Your task to perform on an android device: see creations saved in the google photos Image 0: 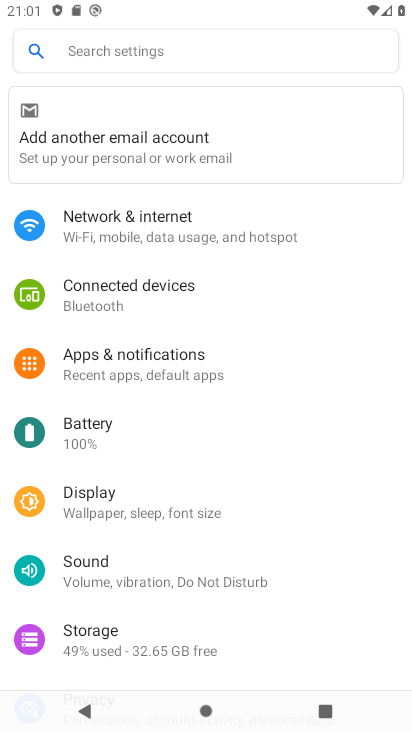
Step 0: press home button
Your task to perform on an android device: see creations saved in the google photos Image 1: 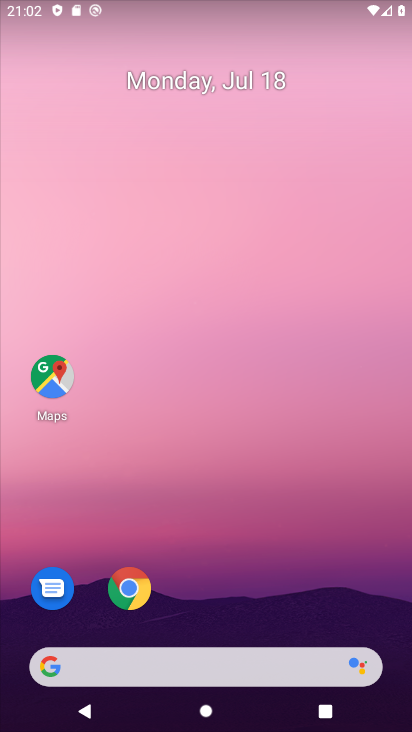
Step 1: drag from (288, 596) to (311, 69)
Your task to perform on an android device: see creations saved in the google photos Image 2: 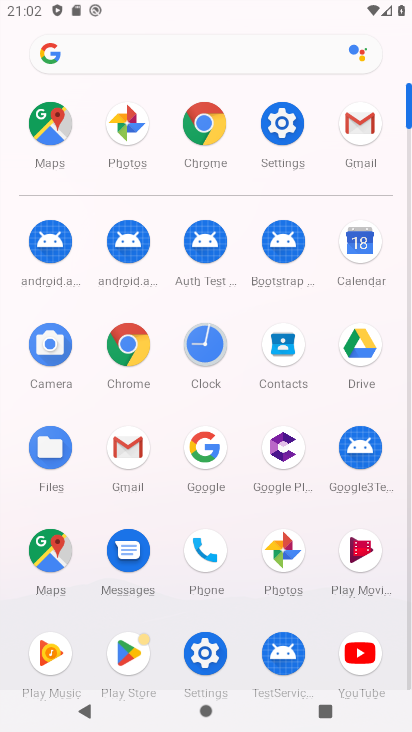
Step 2: click (304, 571)
Your task to perform on an android device: see creations saved in the google photos Image 3: 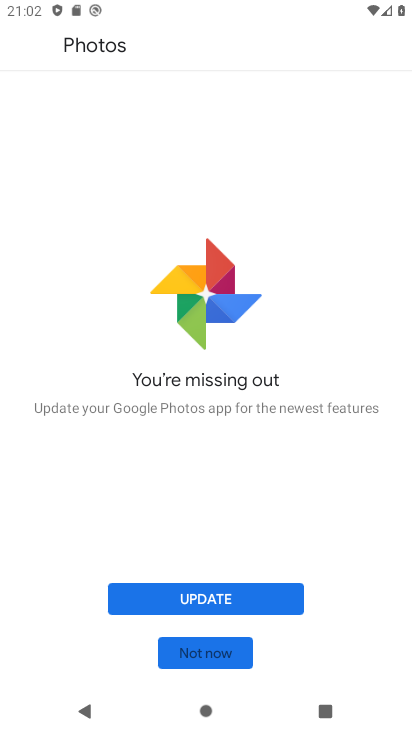
Step 3: click (263, 593)
Your task to perform on an android device: see creations saved in the google photos Image 4: 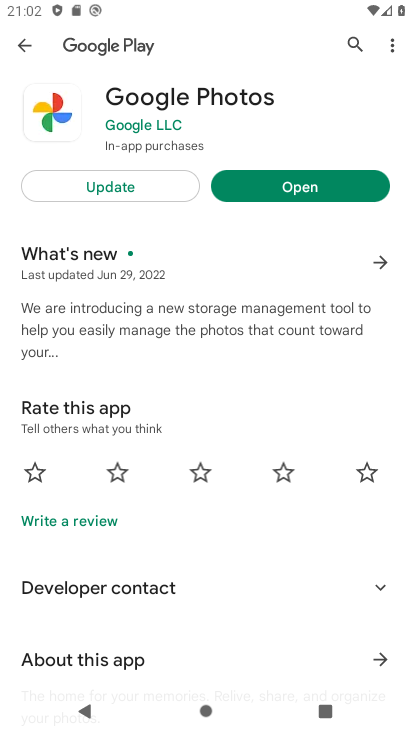
Step 4: click (151, 179)
Your task to perform on an android device: see creations saved in the google photos Image 5: 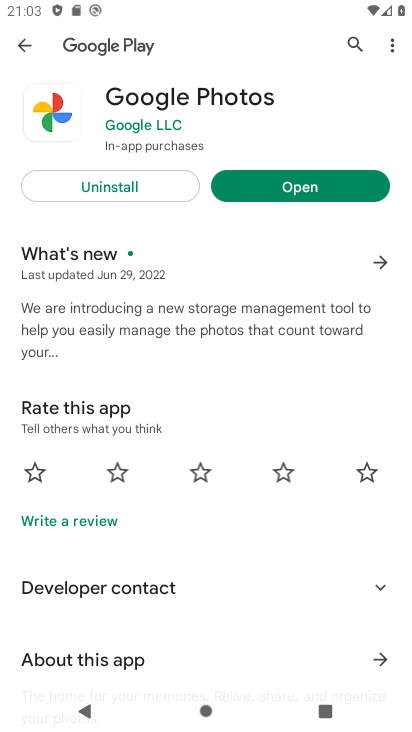
Step 5: click (307, 184)
Your task to perform on an android device: see creations saved in the google photos Image 6: 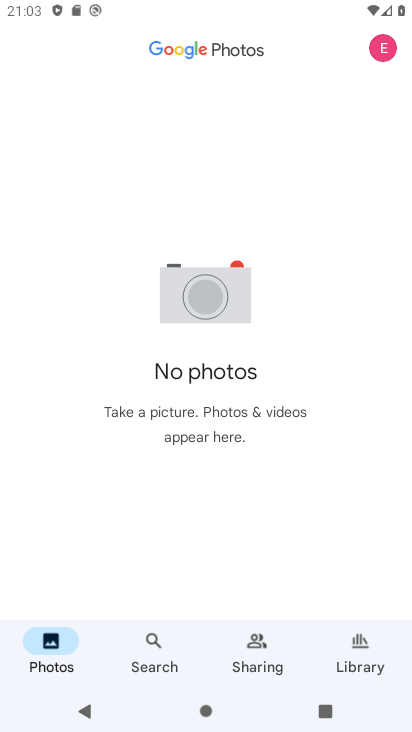
Step 6: click (174, 668)
Your task to perform on an android device: see creations saved in the google photos Image 7: 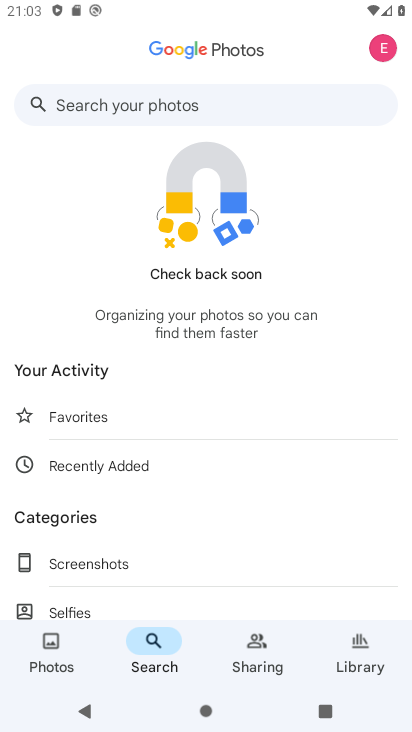
Step 7: click (255, 118)
Your task to perform on an android device: see creations saved in the google photos Image 8: 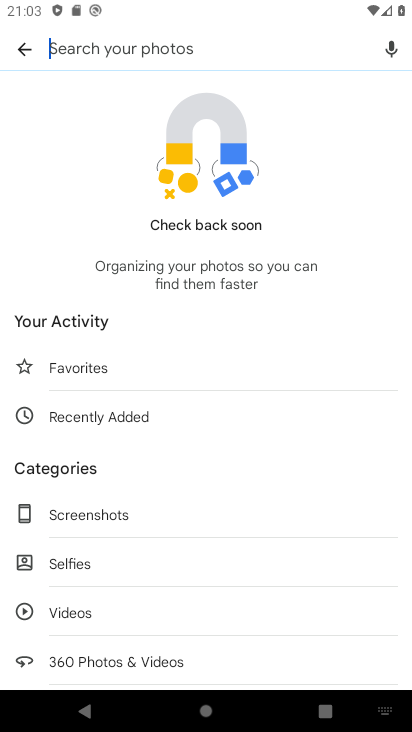
Step 8: drag from (103, 552) to (201, 211)
Your task to perform on an android device: see creations saved in the google photos Image 9: 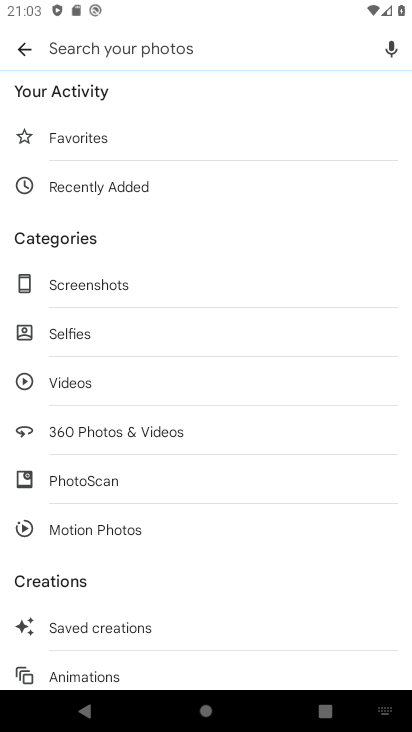
Step 9: click (83, 620)
Your task to perform on an android device: see creations saved in the google photos Image 10: 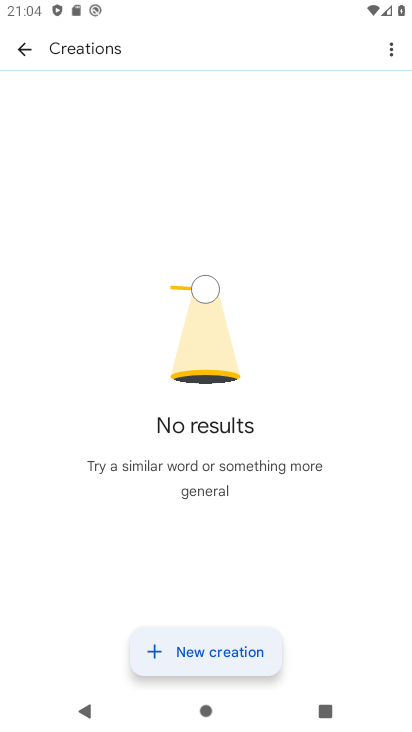
Step 10: task complete